Your task to perform on an android device: toggle notification dots Image 0: 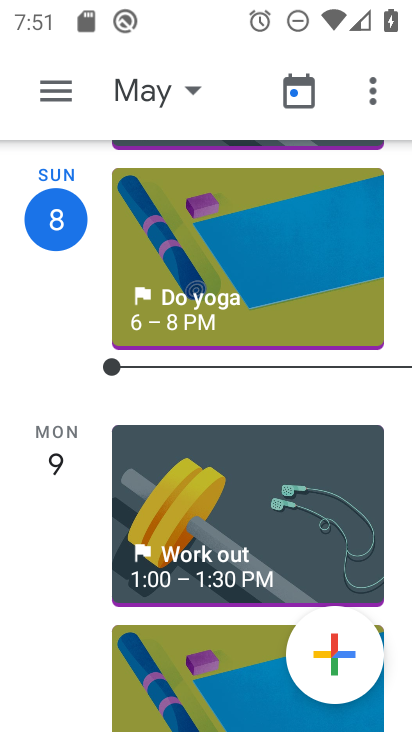
Step 0: press home button
Your task to perform on an android device: toggle notification dots Image 1: 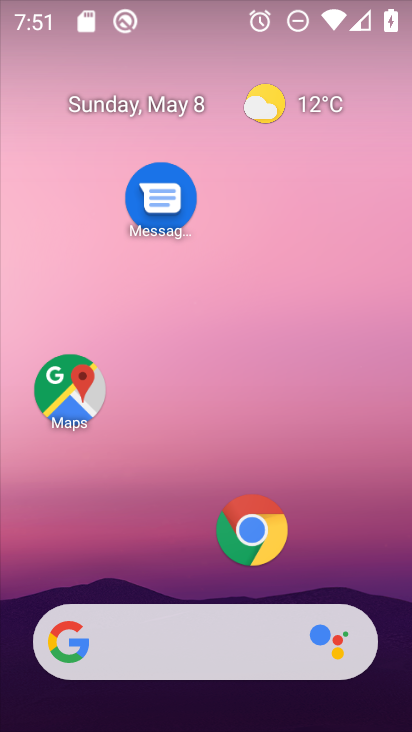
Step 1: drag from (200, 582) to (237, 0)
Your task to perform on an android device: toggle notification dots Image 2: 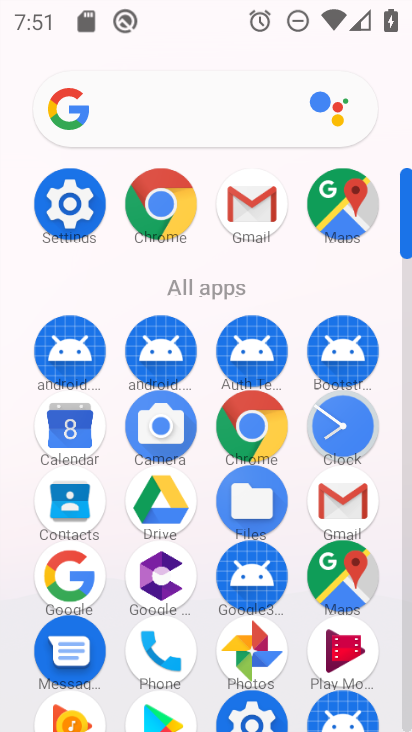
Step 2: click (69, 202)
Your task to perform on an android device: toggle notification dots Image 3: 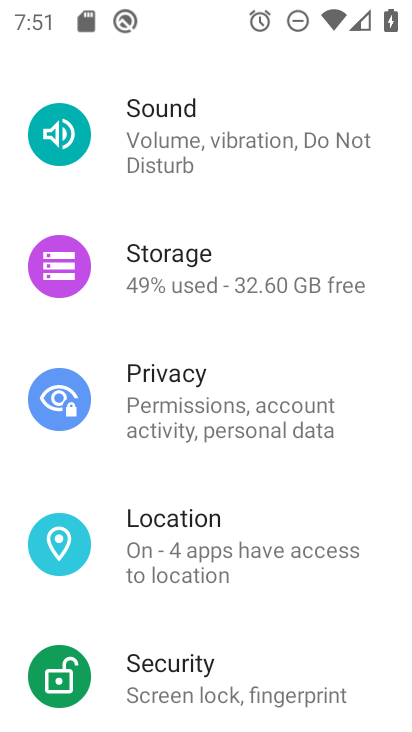
Step 3: drag from (217, 128) to (229, 696)
Your task to perform on an android device: toggle notification dots Image 4: 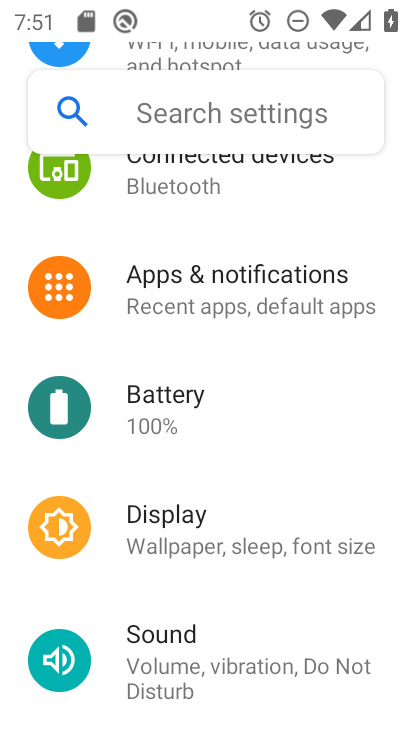
Step 4: click (206, 287)
Your task to perform on an android device: toggle notification dots Image 5: 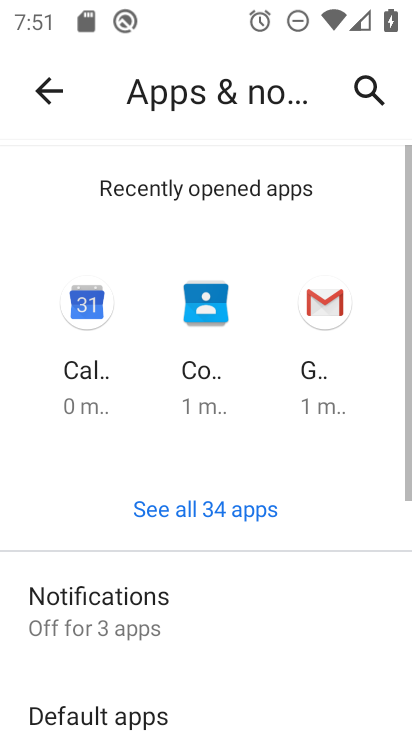
Step 5: click (191, 617)
Your task to perform on an android device: toggle notification dots Image 6: 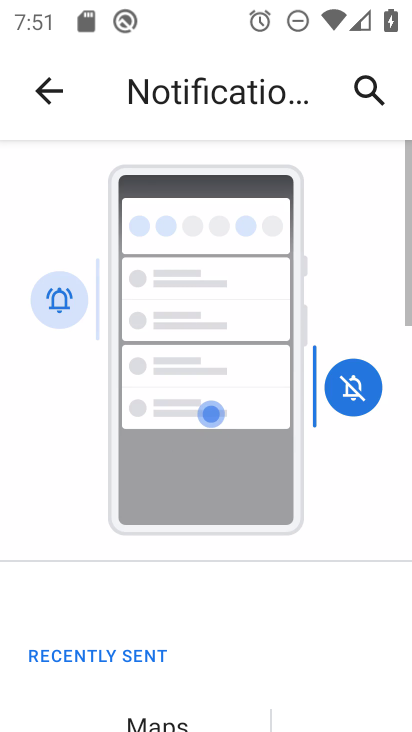
Step 6: drag from (215, 656) to (257, 88)
Your task to perform on an android device: toggle notification dots Image 7: 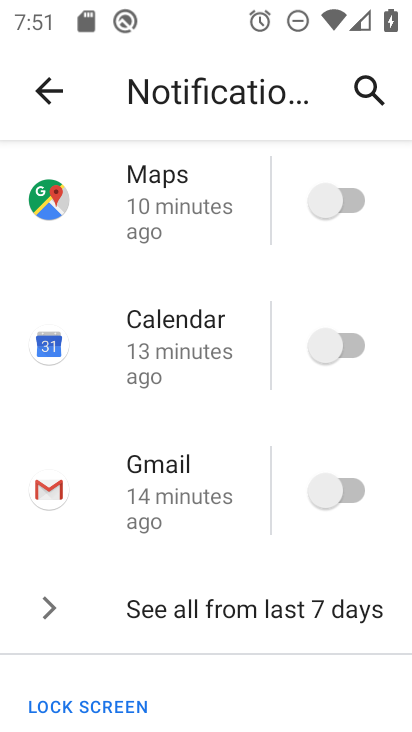
Step 7: drag from (215, 647) to (258, 61)
Your task to perform on an android device: toggle notification dots Image 8: 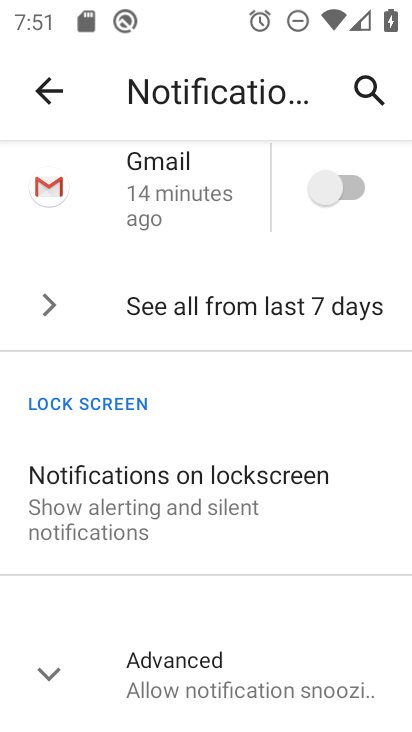
Step 8: click (103, 694)
Your task to perform on an android device: toggle notification dots Image 9: 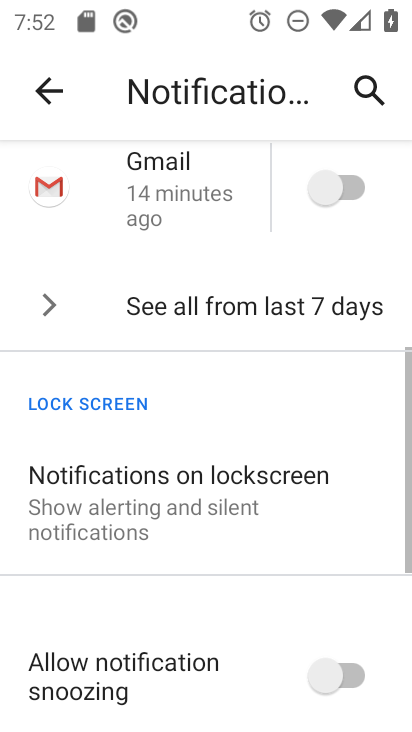
Step 9: drag from (268, 688) to (351, 62)
Your task to perform on an android device: toggle notification dots Image 10: 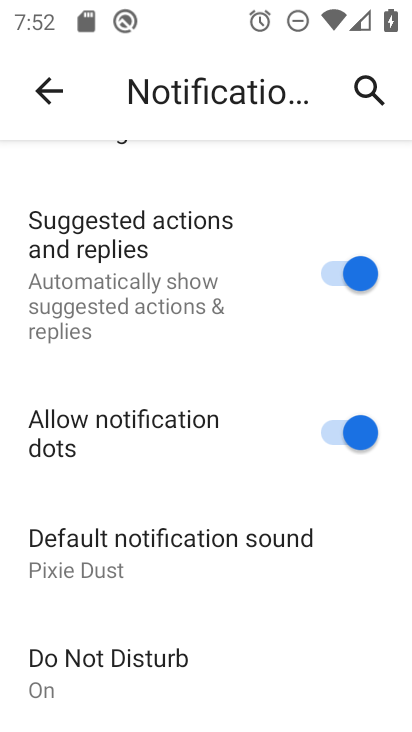
Step 10: click (336, 432)
Your task to perform on an android device: toggle notification dots Image 11: 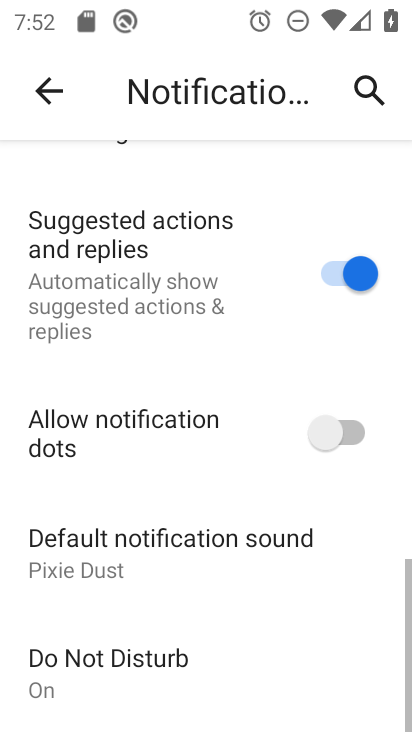
Step 11: task complete